Your task to perform on an android device: Open calendar and show me the third week of next month Image 0: 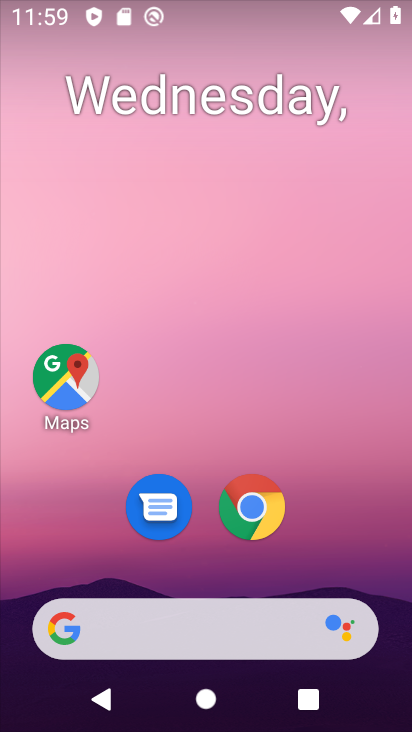
Step 0: drag from (193, 600) to (298, 112)
Your task to perform on an android device: Open calendar and show me the third week of next month Image 1: 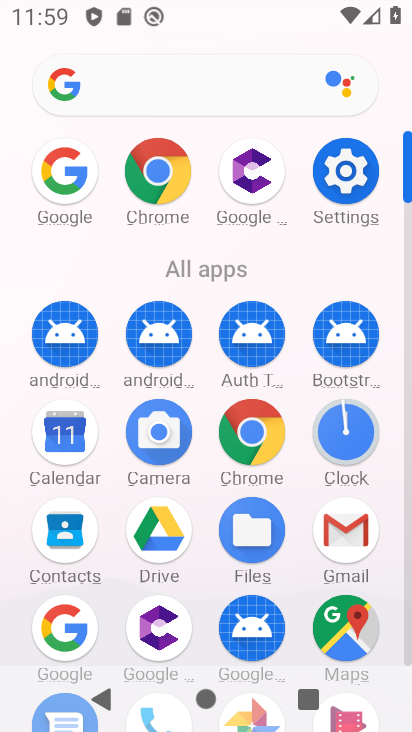
Step 1: click (82, 434)
Your task to perform on an android device: Open calendar and show me the third week of next month Image 2: 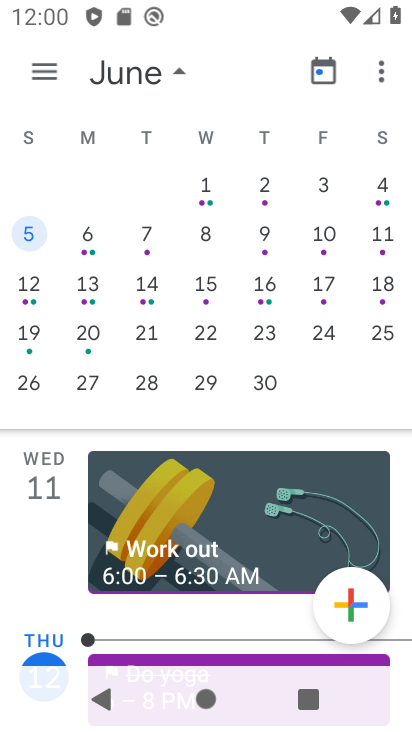
Step 2: click (39, 351)
Your task to perform on an android device: Open calendar and show me the third week of next month Image 3: 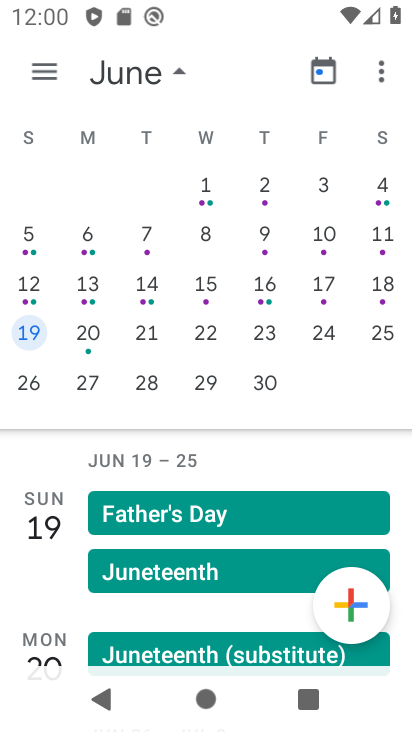
Step 3: task complete